Your task to perform on an android device: Is it going to rain today? Image 0: 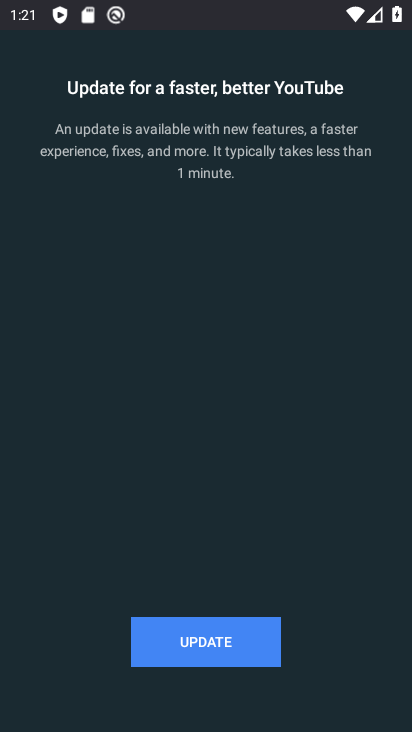
Step 0: click (222, 646)
Your task to perform on an android device: Is it going to rain today? Image 1: 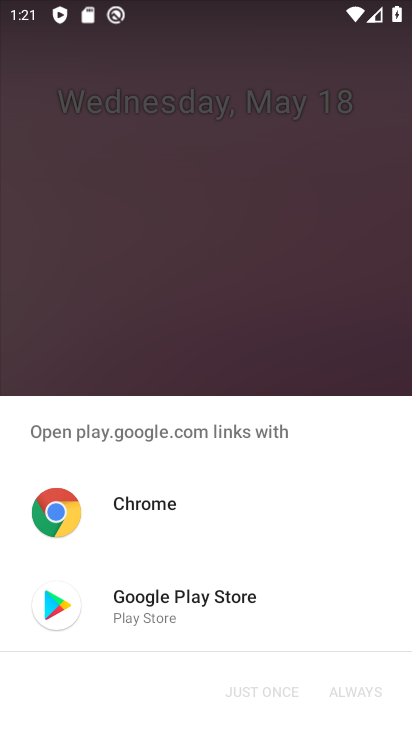
Step 1: click (164, 605)
Your task to perform on an android device: Is it going to rain today? Image 2: 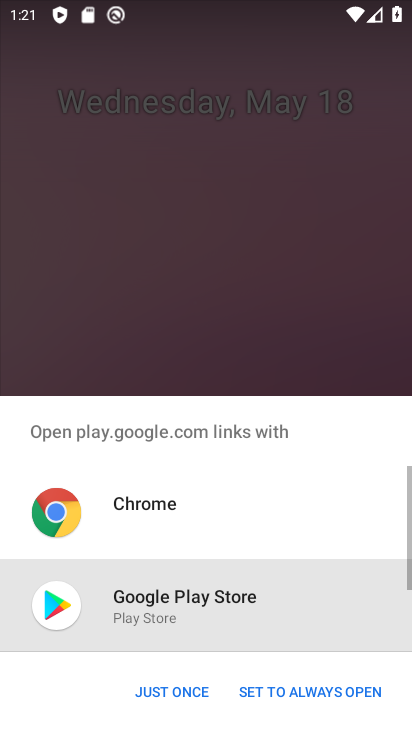
Step 2: click (191, 688)
Your task to perform on an android device: Is it going to rain today? Image 3: 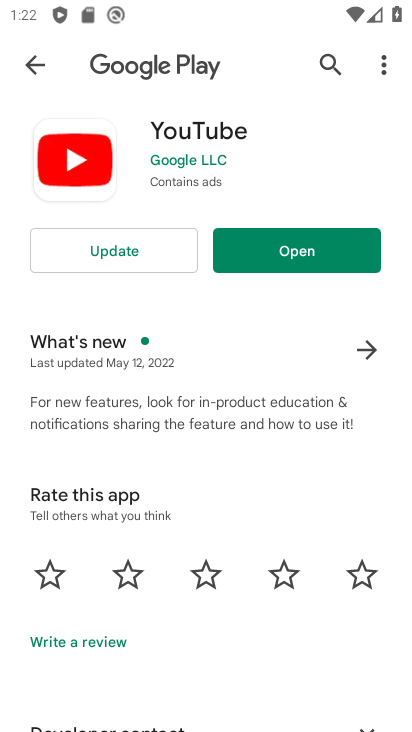
Step 3: press home button
Your task to perform on an android device: Is it going to rain today? Image 4: 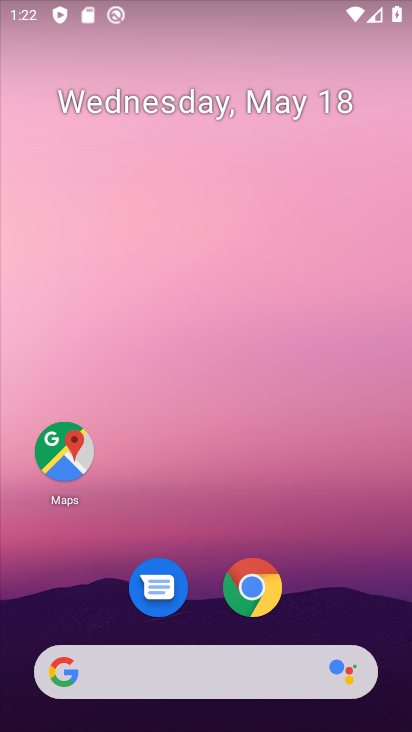
Step 4: drag from (399, 488) to (409, 40)
Your task to perform on an android device: Is it going to rain today? Image 5: 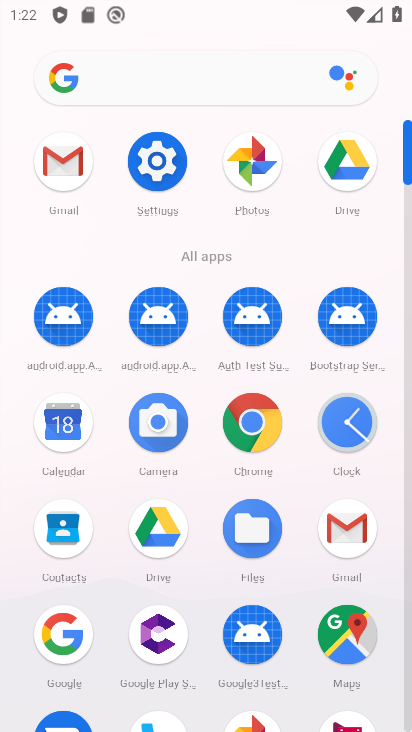
Step 5: click (80, 629)
Your task to perform on an android device: Is it going to rain today? Image 6: 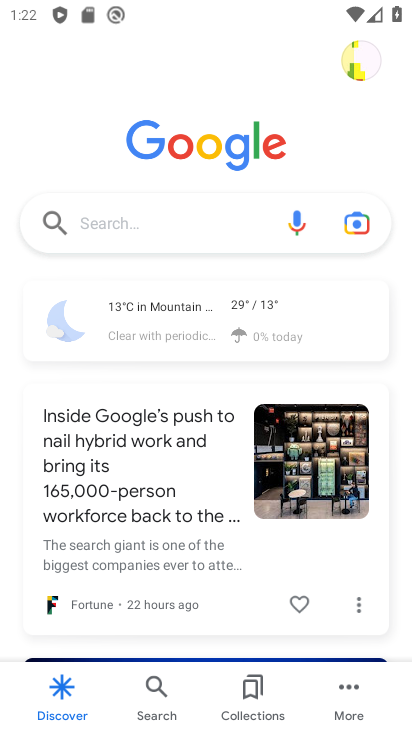
Step 6: click (190, 314)
Your task to perform on an android device: Is it going to rain today? Image 7: 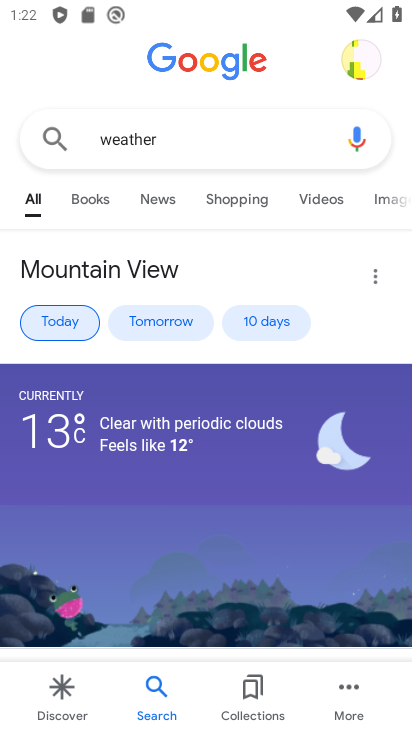
Step 7: task complete